Your task to perform on an android device: turn on improve location accuracy Image 0: 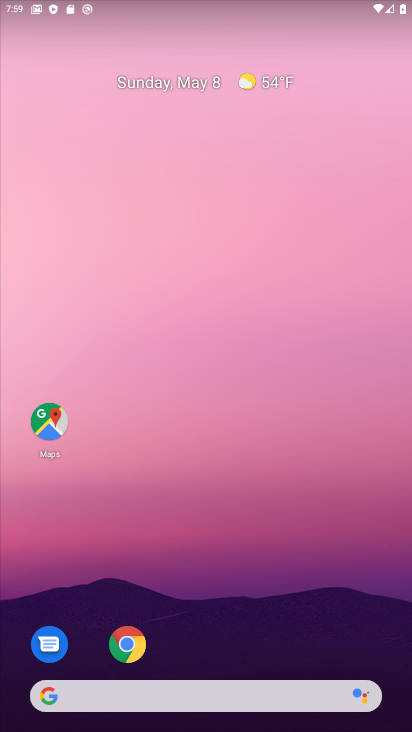
Step 0: drag from (218, 660) to (241, 292)
Your task to perform on an android device: turn on improve location accuracy Image 1: 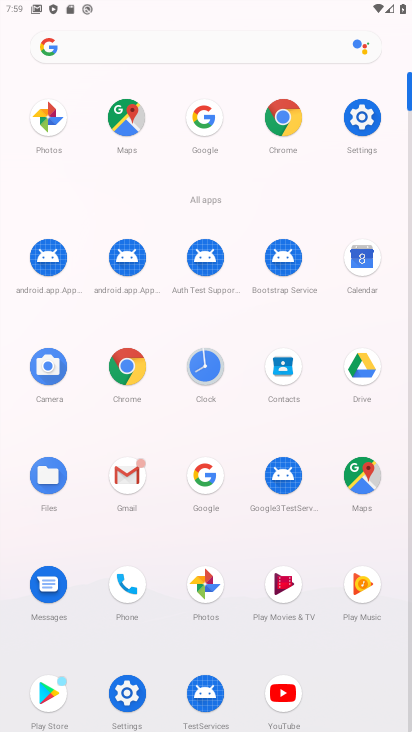
Step 1: click (365, 123)
Your task to perform on an android device: turn on improve location accuracy Image 2: 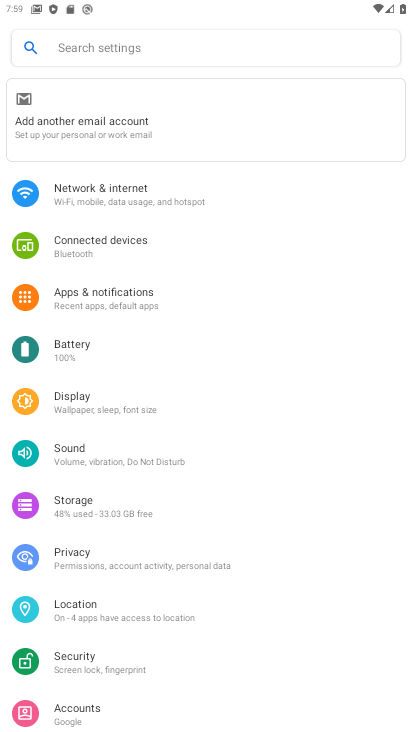
Step 2: click (78, 613)
Your task to perform on an android device: turn on improve location accuracy Image 3: 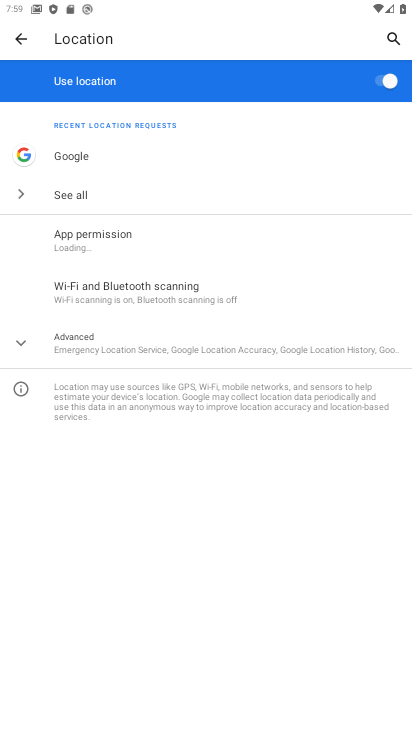
Step 3: click (108, 341)
Your task to perform on an android device: turn on improve location accuracy Image 4: 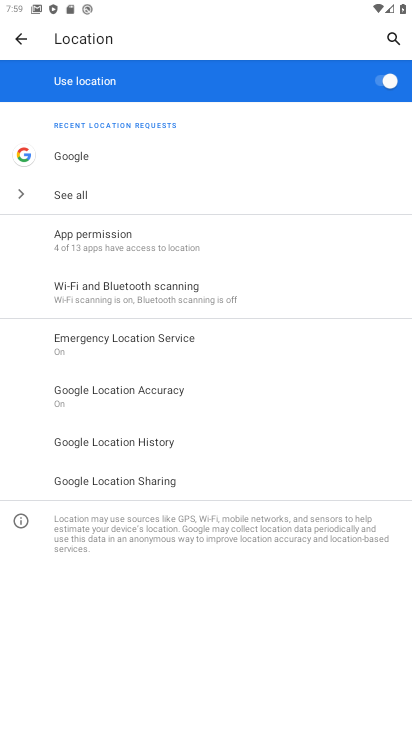
Step 4: click (107, 383)
Your task to perform on an android device: turn on improve location accuracy Image 5: 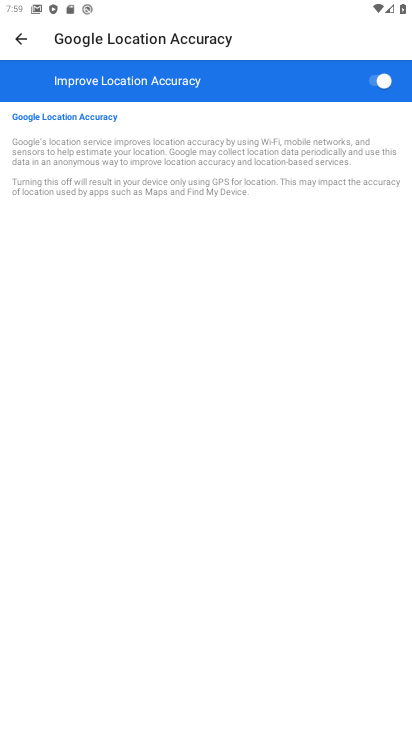
Step 5: task complete